Your task to perform on an android device: turn on notifications settings in the gmail app Image 0: 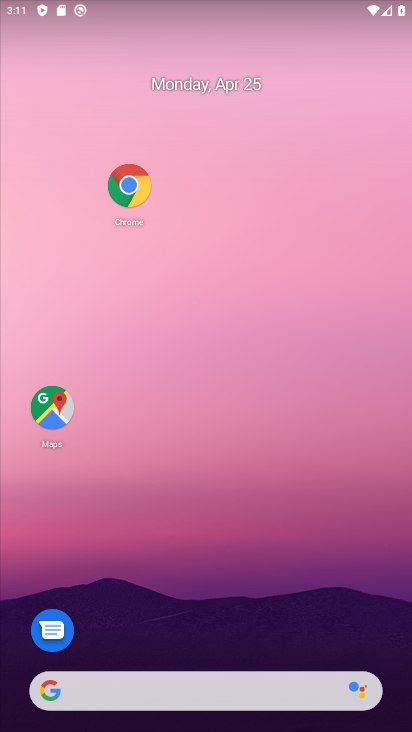
Step 0: drag from (171, 650) to (127, 176)
Your task to perform on an android device: turn on notifications settings in the gmail app Image 1: 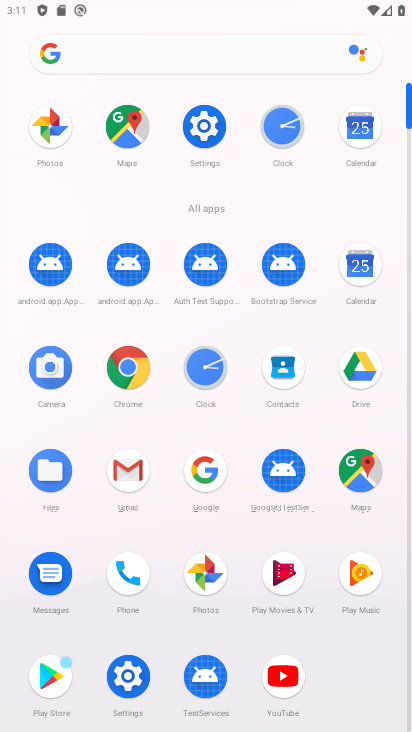
Step 1: click (212, 125)
Your task to perform on an android device: turn on notifications settings in the gmail app Image 2: 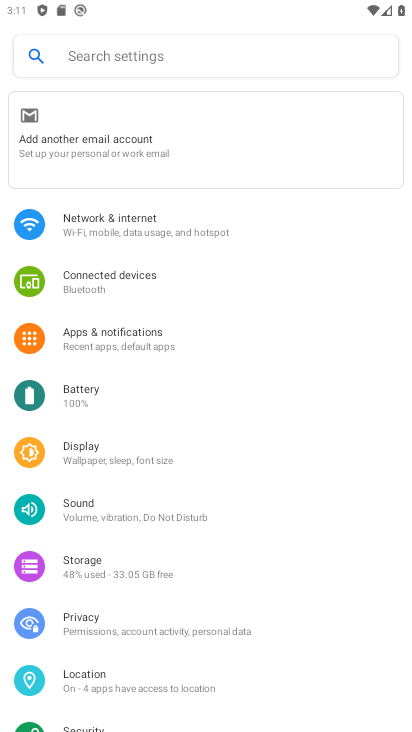
Step 2: press home button
Your task to perform on an android device: turn on notifications settings in the gmail app Image 3: 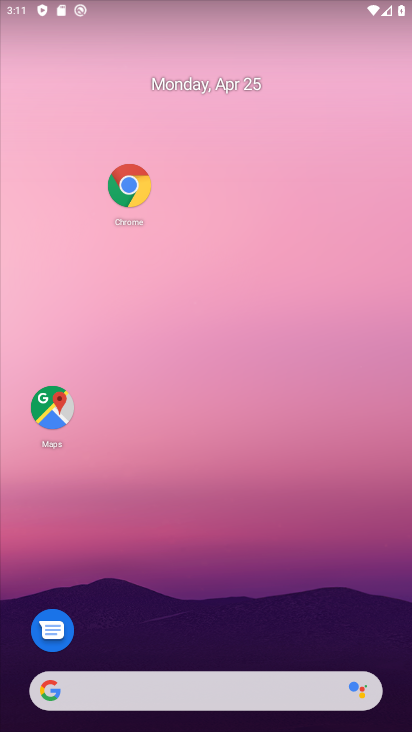
Step 3: drag from (154, 613) to (139, 230)
Your task to perform on an android device: turn on notifications settings in the gmail app Image 4: 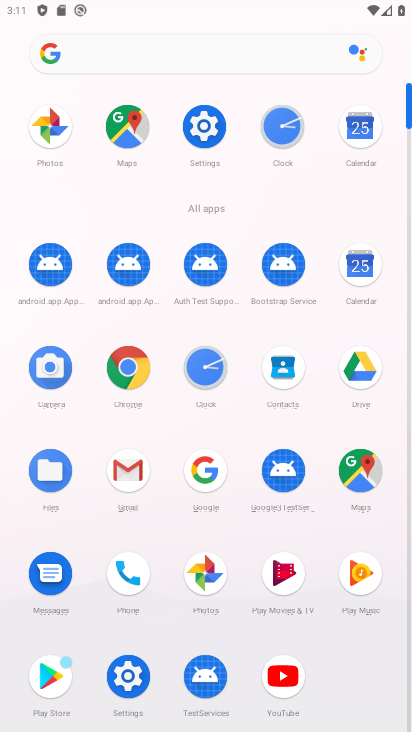
Step 4: click (125, 482)
Your task to perform on an android device: turn on notifications settings in the gmail app Image 5: 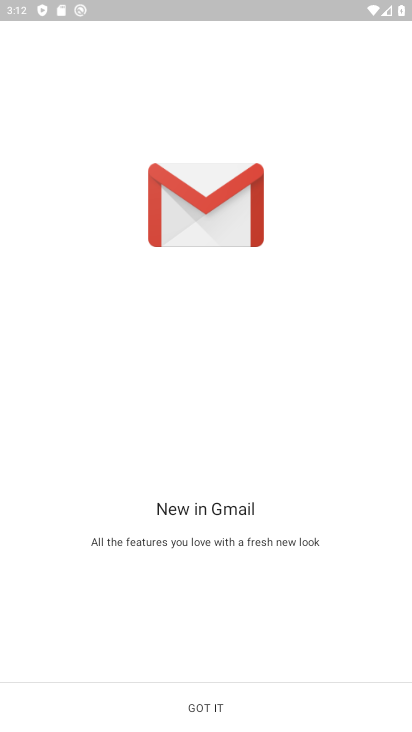
Step 5: click (198, 706)
Your task to perform on an android device: turn on notifications settings in the gmail app Image 6: 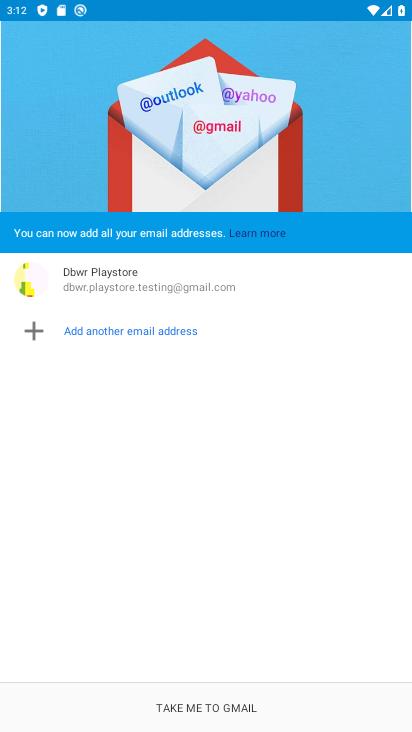
Step 6: click (208, 702)
Your task to perform on an android device: turn on notifications settings in the gmail app Image 7: 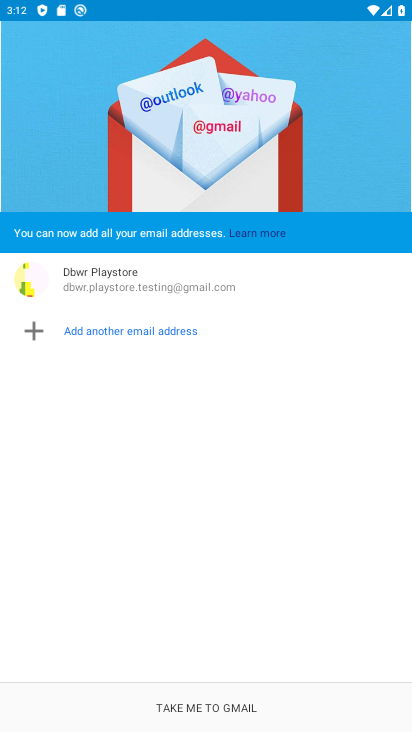
Step 7: click (207, 701)
Your task to perform on an android device: turn on notifications settings in the gmail app Image 8: 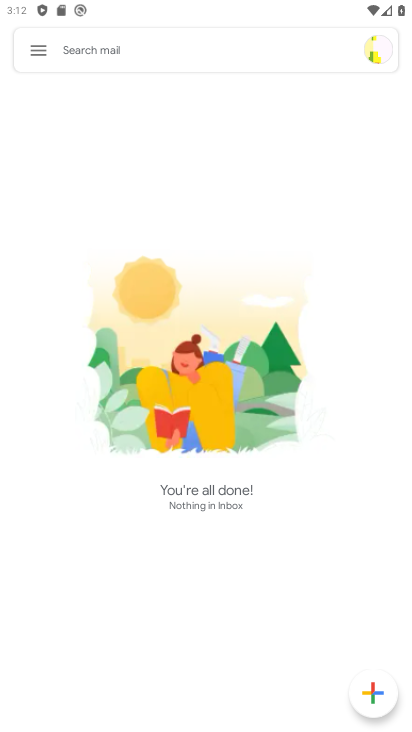
Step 8: click (37, 52)
Your task to perform on an android device: turn on notifications settings in the gmail app Image 9: 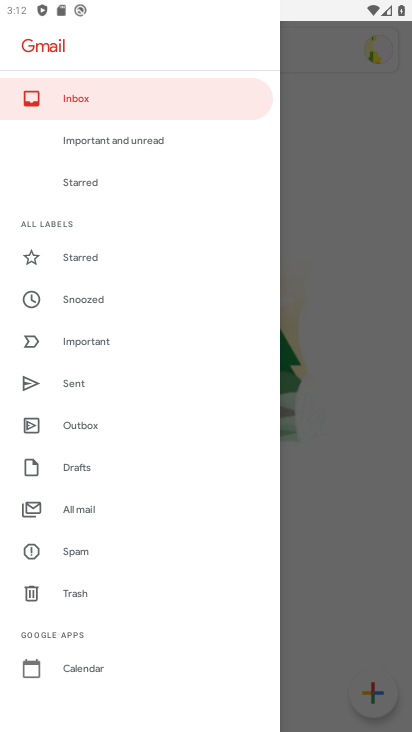
Step 9: drag from (115, 615) to (143, 245)
Your task to perform on an android device: turn on notifications settings in the gmail app Image 10: 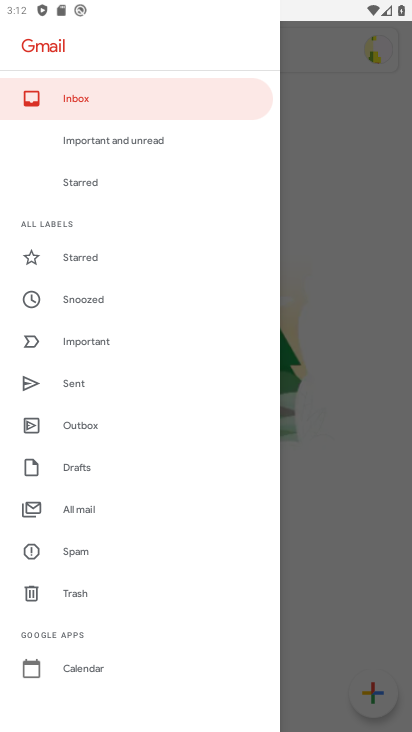
Step 10: drag from (185, 658) to (192, 230)
Your task to perform on an android device: turn on notifications settings in the gmail app Image 11: 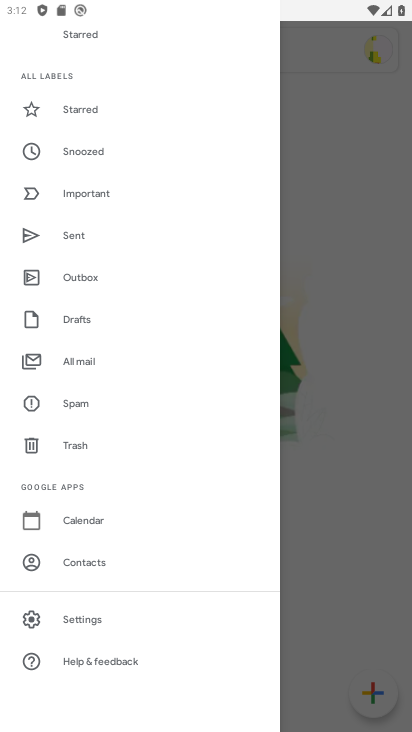
Step 11: click (91, 620)
Your task to perform on an android device: turn on notifications settings in the gmail app Image 12: 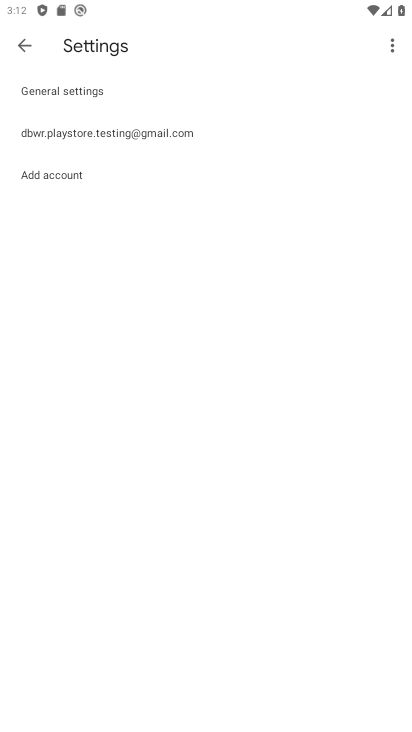
Step 12: click (135, 130)
Your task to perform on an android device: turn on notifications settings in the gmail app Image 13: 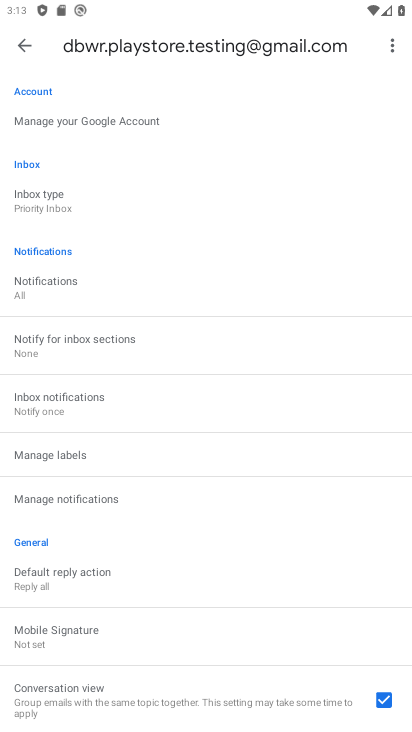
Step 13: click (90, 292)
Your task to perform on an android device: turn on notifications settings in the gmail app Image 14: 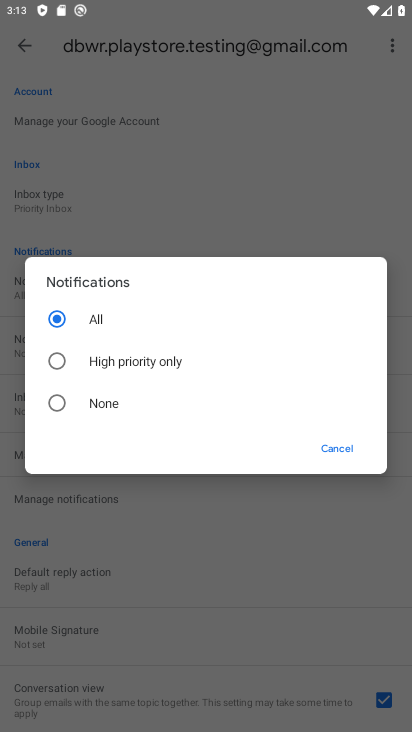
Step 14: task complete